Your task to perform on an android device: Open settings on Google Maps Image 0: 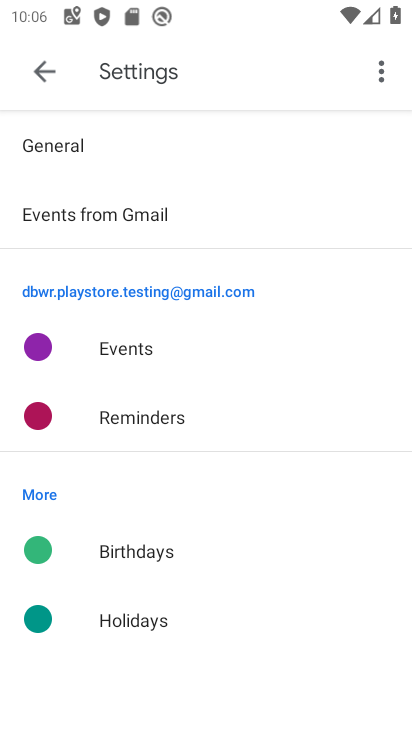
Step 0: press home button
Your task to perform on an android device: Open settings on Google Maps Image 1: 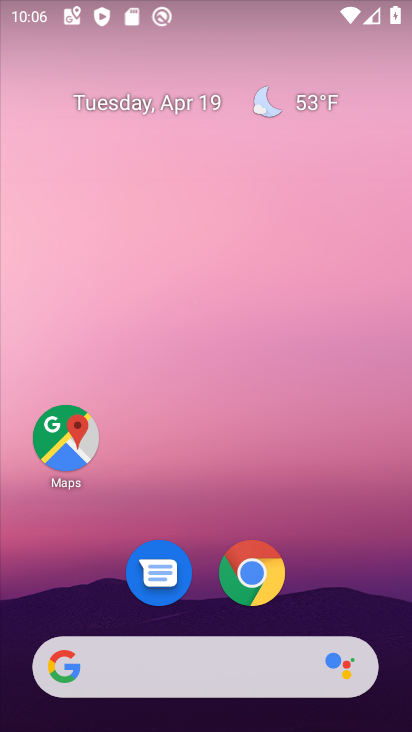
Step 1: drag from (199, 644) to (199, 41)
Your task to perform on an android device: Open settings on Google Maps Image 2: 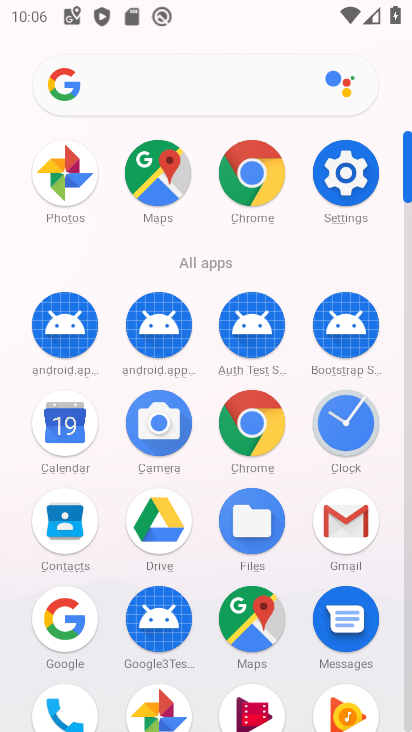
Step 2: click (256, 622)
Your task to perform on an android device: Open settings on Google Maps Image 3: 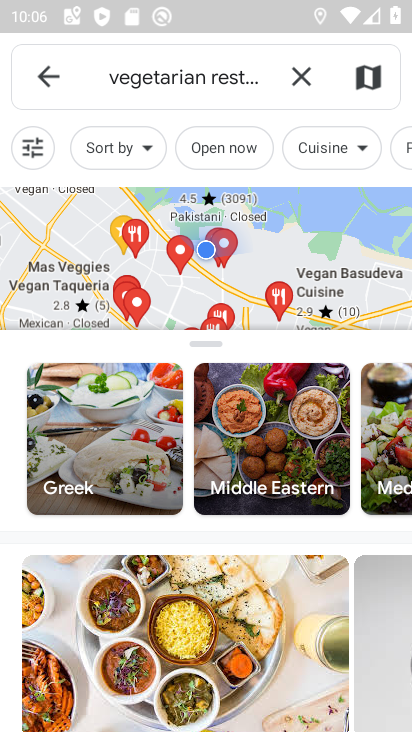
Step 3: click (50, 77)
Your task to perform on an android device: Open settings on Google Maps Image 4: 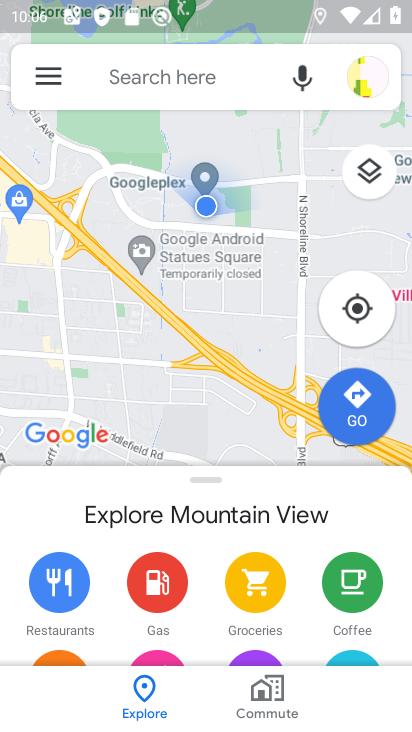
Step 4: click (50, 77)
Your task to perform on an android device: Open settings on Google Maps Image 5: 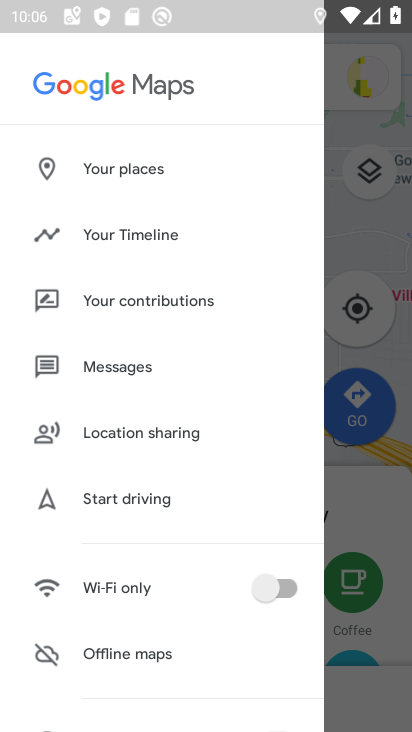
Step 5: drag from (149, 612) to (144, 204)
Your task to perform on an android device: Open settings on Google Maps Image 6: 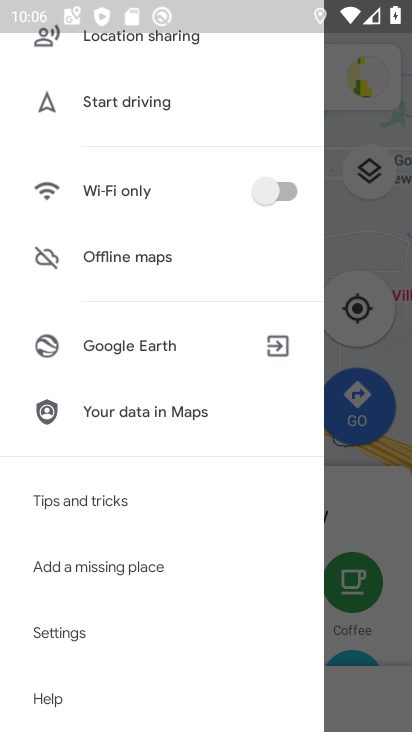
Step 6: click (54, 625)
Your task to perform on an android device: Open settings on Google Maps Image 7: 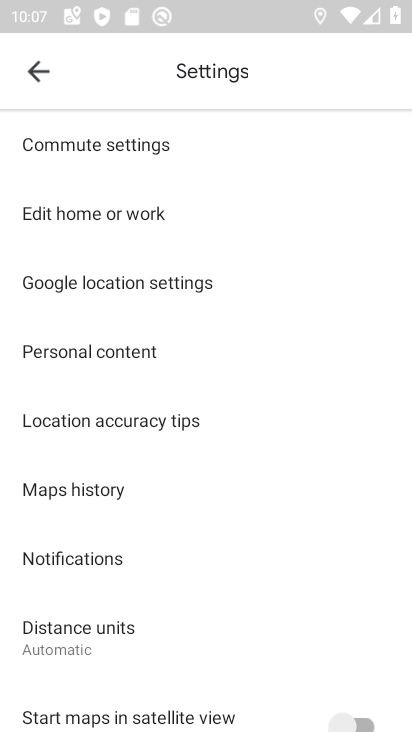
Step 7: task complete